Your task to perform on an android device: Is it going to rain tomorrow? Image 0: 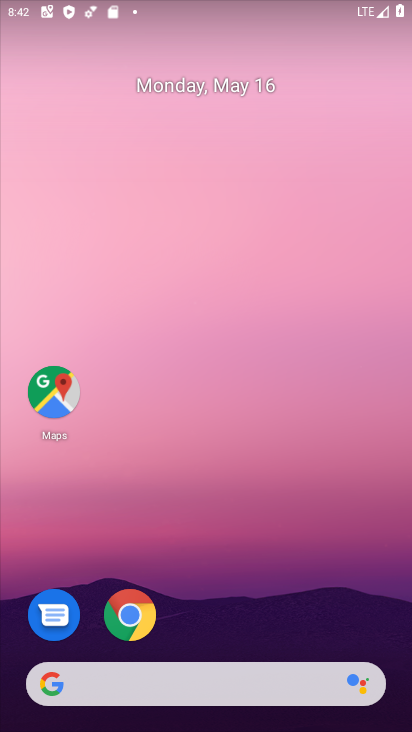
Step 0: drag from (273, 595) to (282, 64)
Your task to perform on an android device: Is it going to rain tomorrow? Image 1: 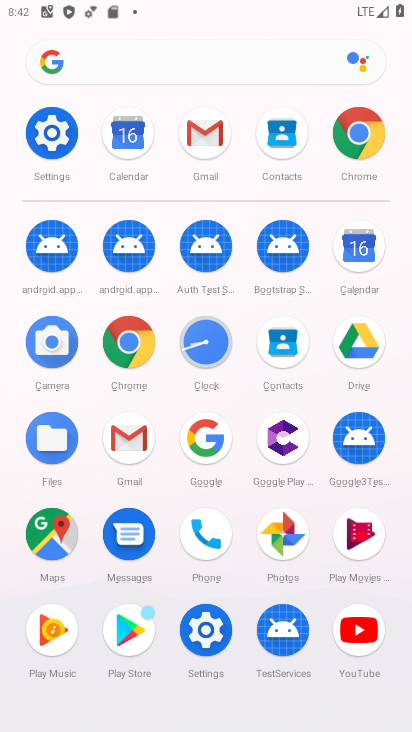
Step 1: click (218, 455)
Your task to perform on an android device: Is it going to rain tomorrow? Image 2: 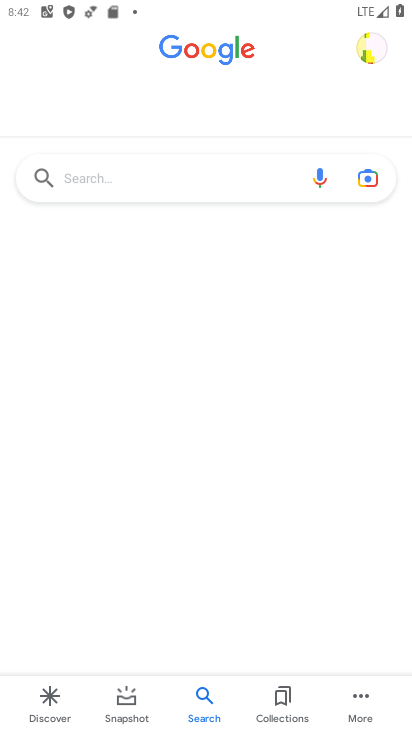
Step 2: click (157, 182)
Your task to perform on an android device: Is it going to rain tomorrow? Image 3: 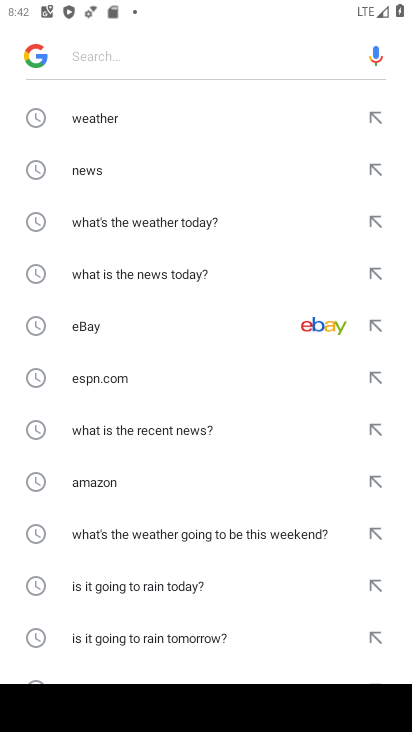
Step 3: click (192, 123)
Your task to perform on an android device: Is it going to rain tomorrow? Image 4: 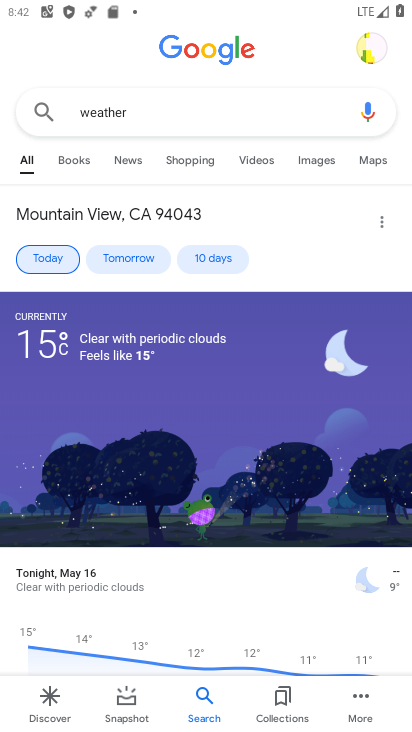
Step 4: click (135, 256)
Your task to perform on an android device: Is it going to rain tomorrow? Image 5: 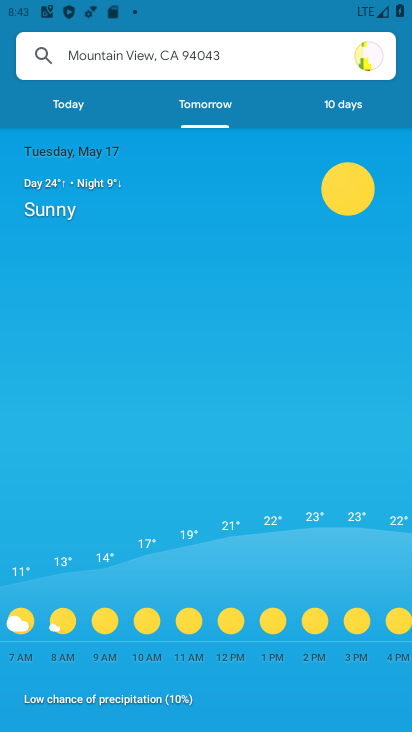
Step 5: task complete